Your task to perform on an android device: Open Google Image 0: 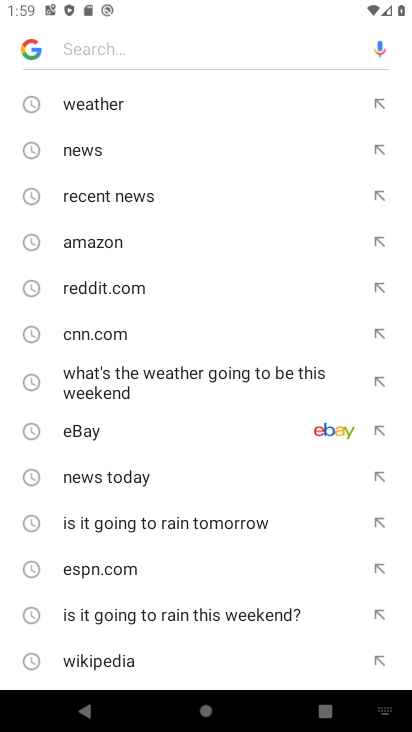
Step 0: press home button
Your task to perform on an android device: Open Google Image 1: 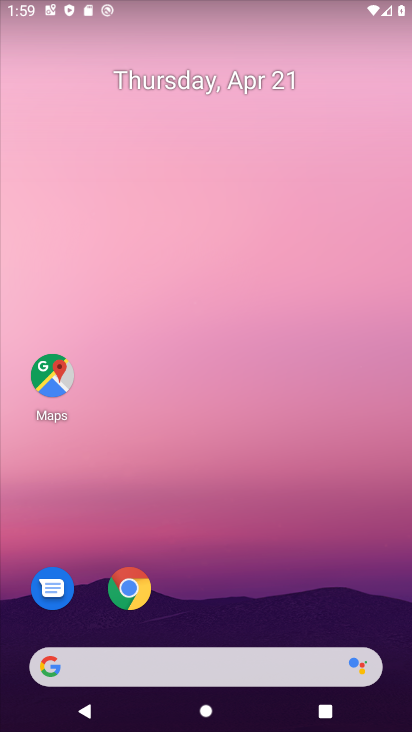
Step 1: drag from (267, 614) to (310, 21)
Your task to perform on an android device: Open Google Image 2: 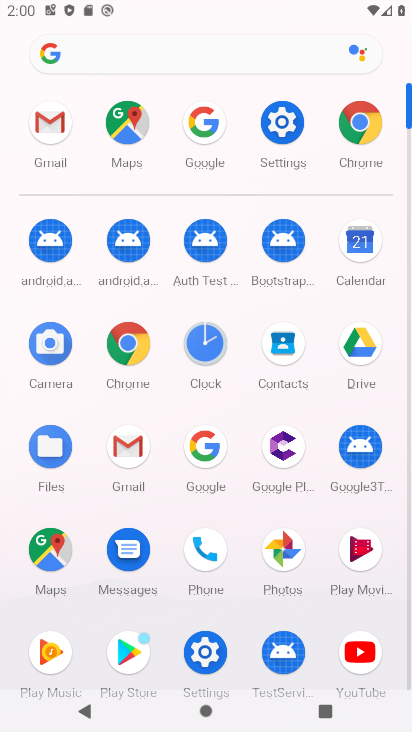
Step 2: click (207, 145)
Your task to perform on an android device: Open Google Image 3: 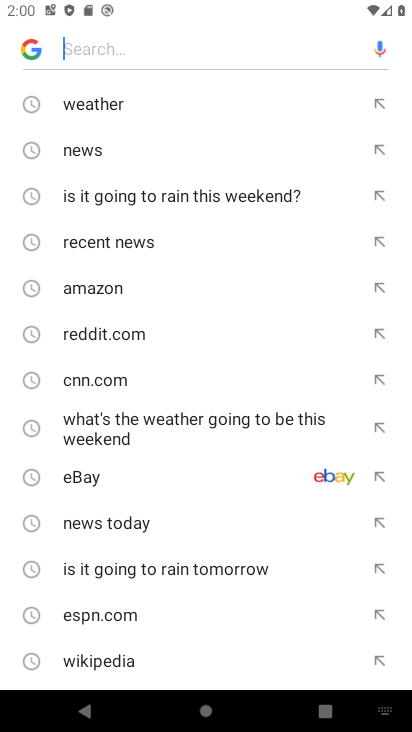
Step 3: task complete